Your task to perform on an android device: turn off notifications settings in the gmail app Image 0: 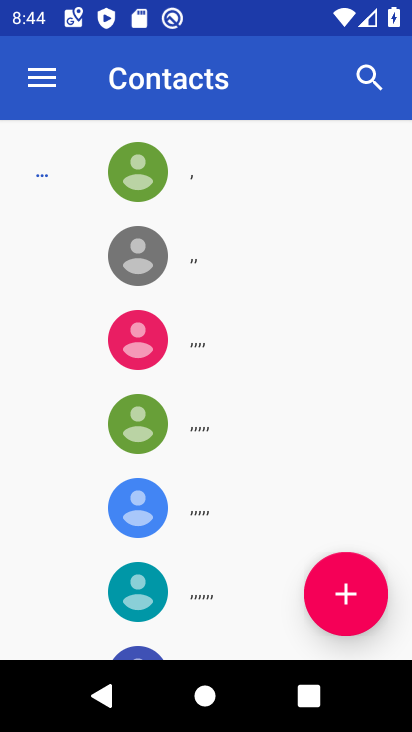
Step 0: press home button
Your task to perform on an android device: turn off notifications settings in the gmail app Image 1: 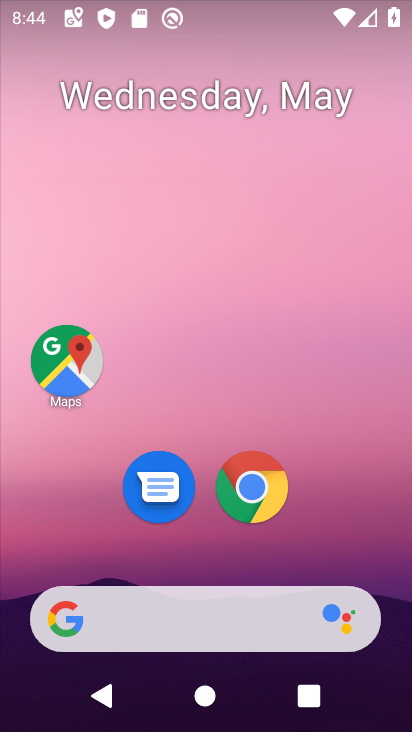
Step 1: drag from (320, 518) to (250, 91)
Your task to perform on an android device: turn off notifications settings in the gmail app Image 2: 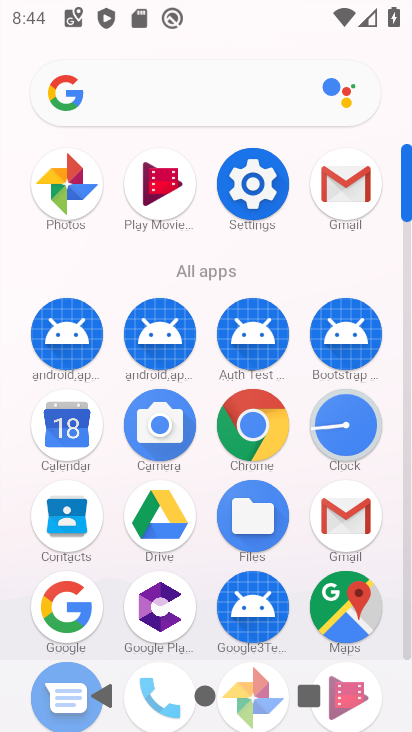
Step 2: click (345, 186)
Your task to perform on an android device: turn off notifications settings in the gmail app Image 3: 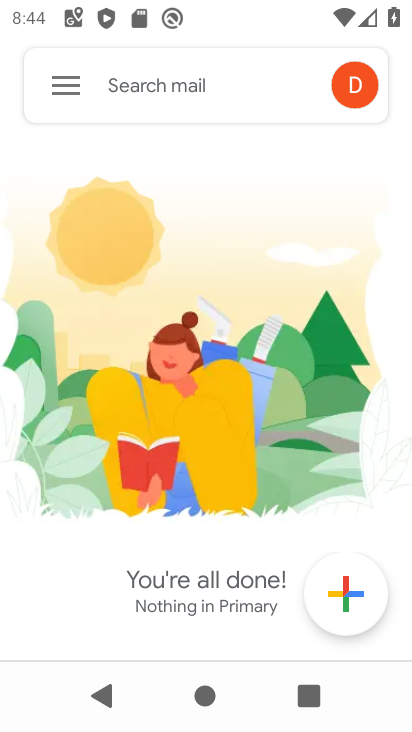
Step 3: click (59, 88)
Your task to perform on an android device: turn off notifications settings in the gmail app Image 4: 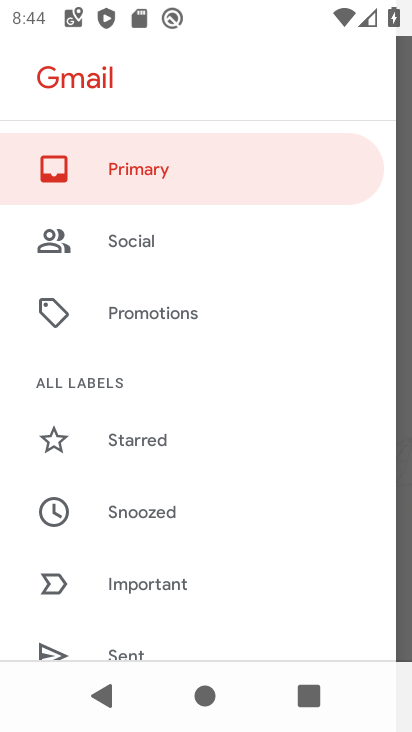
Step 4: drag from (236, 539) to (155, 170)
Your task to perform on an android device: turn off notifications settings in the gmail app Image 5: 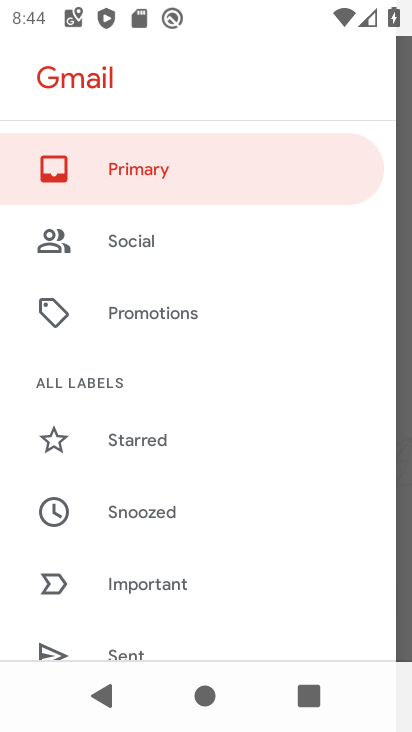
Step 5: drag from (225, 420) to (229, 108)
Your task to perform on an android device: turn off notifications settings in the gmail app Image 6: 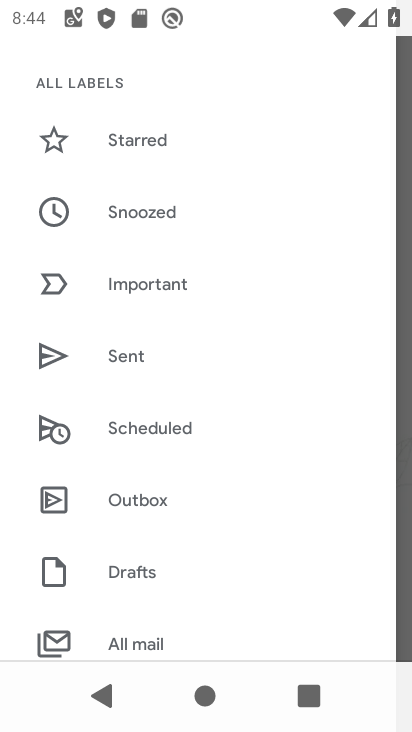
Step 6: click (229, 108)
Your task to perform on an android device: turn off notifications settings in the gmail app Image 7: 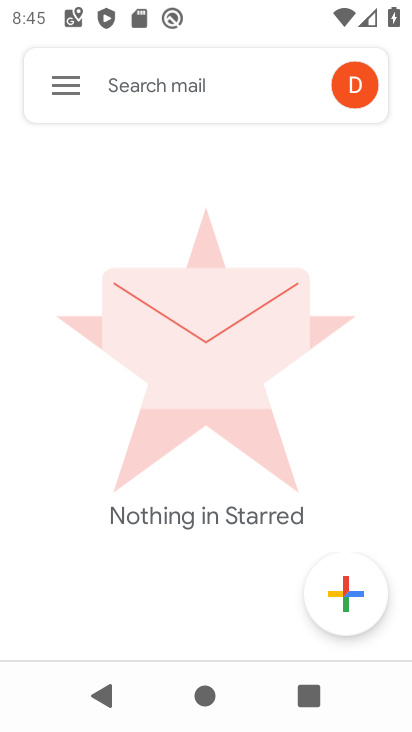
Step 7: click (64, 87)
Your task to perform on an android device: turn off notifications settings in the gmail app Image 8: 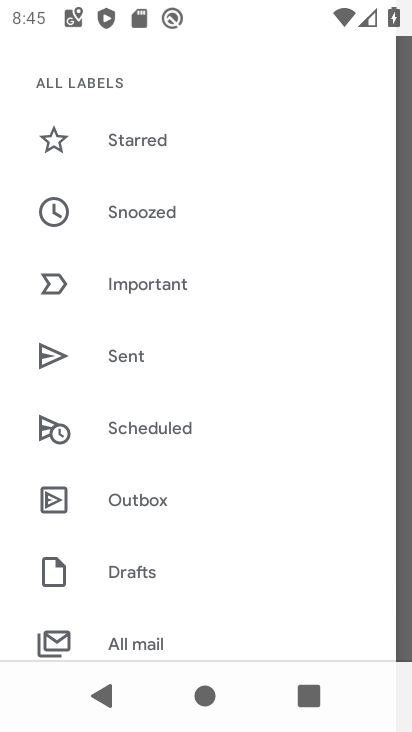
Step 8: drag from (234, 536) to (195, 247)
Your task to perform on an android device: turn off notifications settings in the gmail app Image 9: 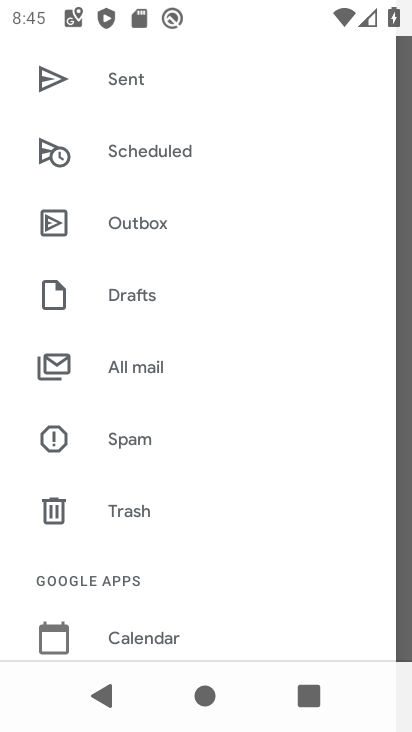
Step 9: drag from (224, 496) to (173, 206)
Your task to perform on an android device: turn off notifications settings in the gmail app Image 10: 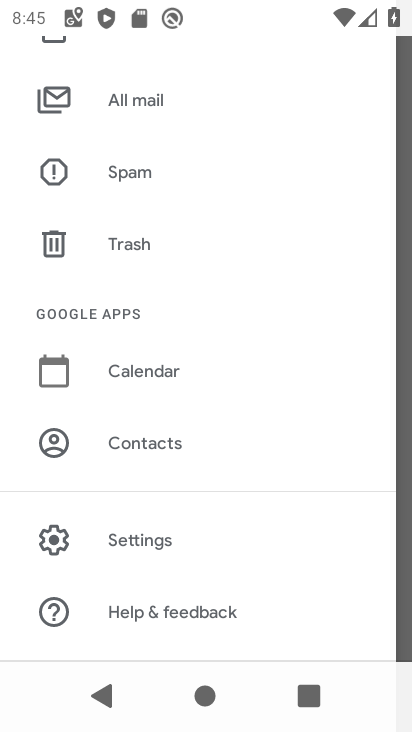
Step 10: click (129, 535)
Your task to perform on an android device: turn off notifications settings in the gmail app Image 11: 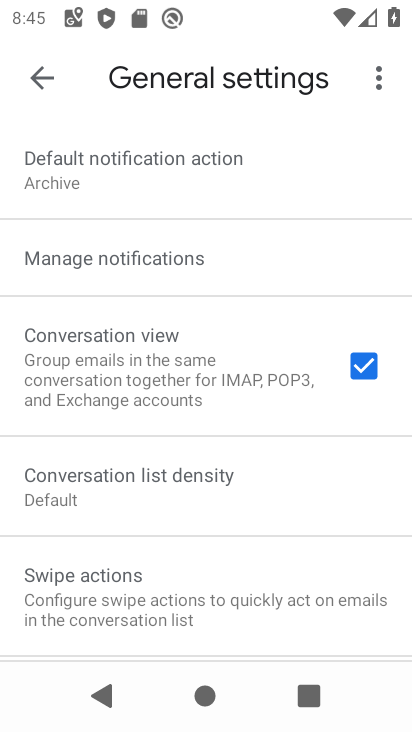
Step 11: click (133, 266)
Your task to perform on an android device: turn off notifications settings in the gmail app Image 12: 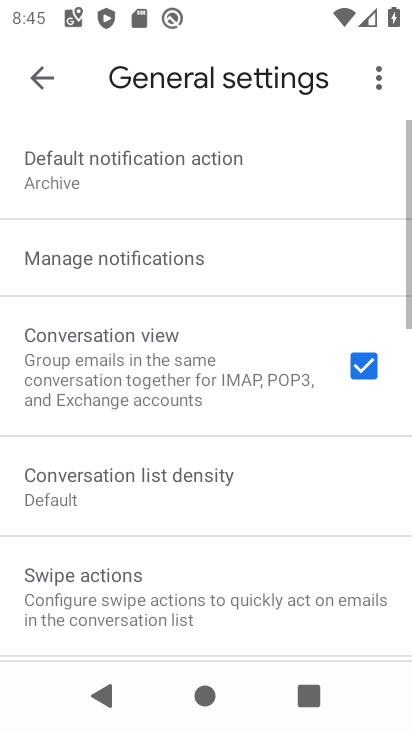
Step 12: click (133, 266)
Your task to perform on an android device: turn off notifications settings in the gmail app Image 13: 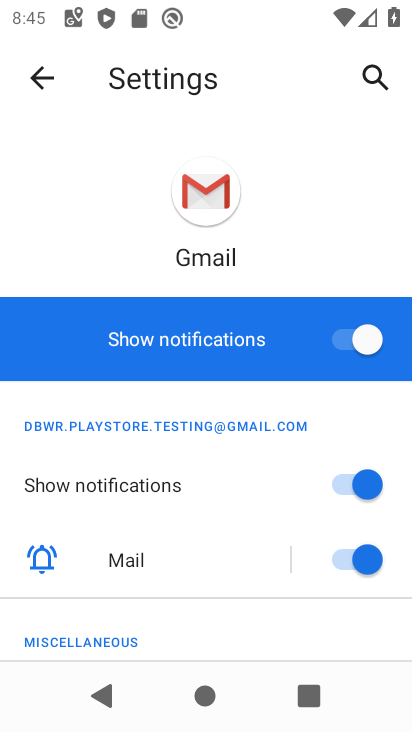
Step 13: click (366, 345)
Your task to perform on an android device: turn off notifications settings in the gmail app Image 14: 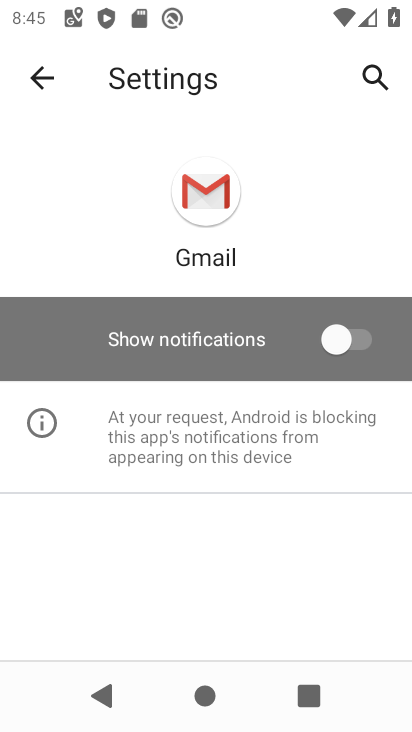
Step 14: task complete